Your task to perform on an android device: move an email to a new category in the gmail app Image 0: 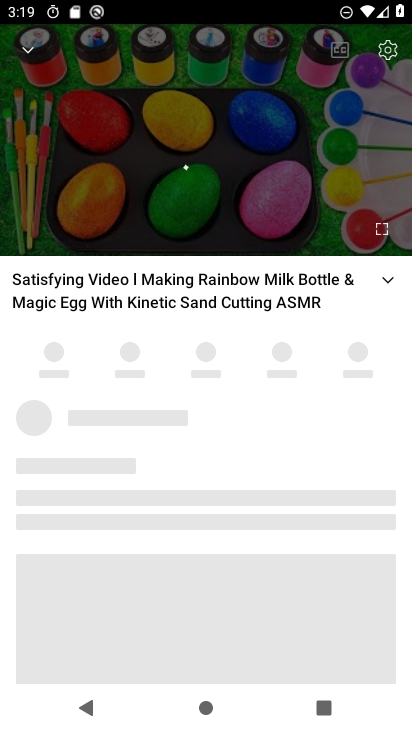
Step 0: press home button
Your task to perform on an android device: move an email to a new category in the gmail app Image 1: 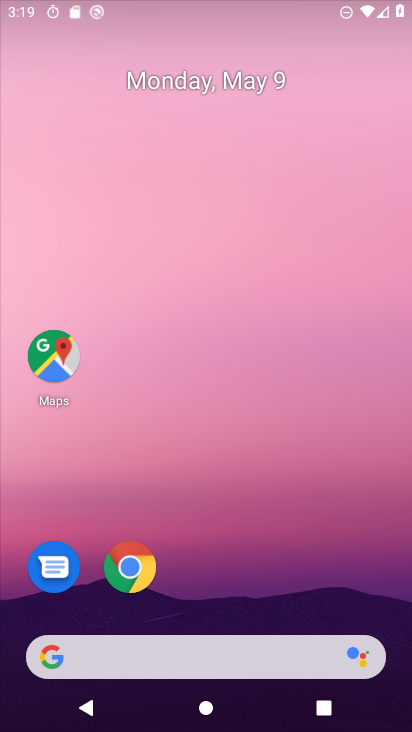
Step 1: drag from (214, 591) to (222, 96)
Your task to perform on an android device: move an email to a new category in the gmail app Image 2: 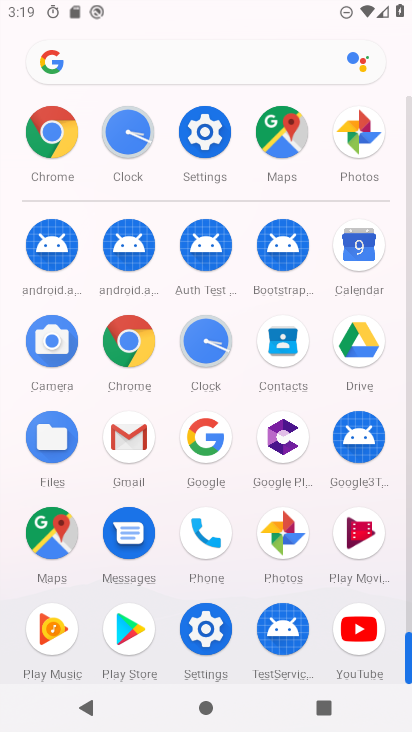
Step 2: click (138, 439)
Your task to perform on an android device: move an email to a new category in the gmail app Image 3: 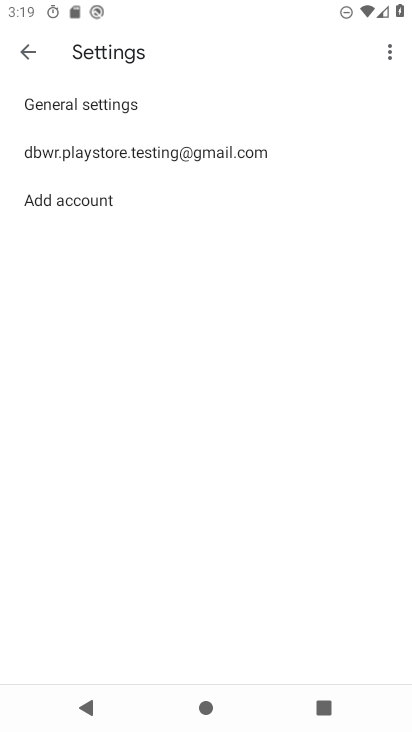
Step 3: click (28, 52)
Your task to perform on an android device: move an email to a new category in the gmail app Image 4: 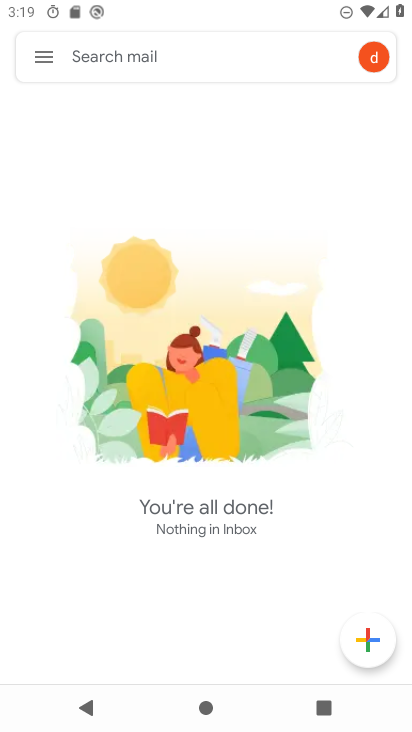
Step 4: click (46, 58)
Your task to perform on an android device: move an email to a new category in the gmail app Image 5: 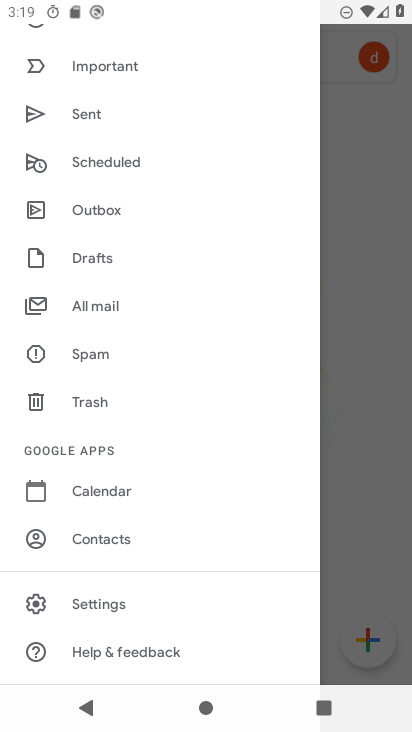
Step 5: click (101, 306)
Your task to perform on an android device: move an email to a new category in the gmail app Image 6: 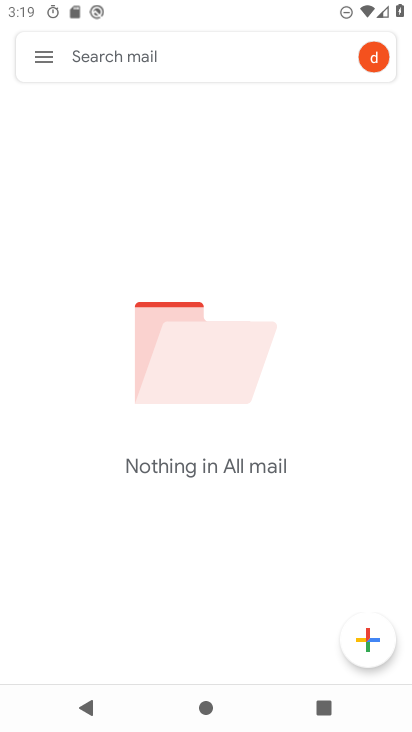
Step 6: task complete